Your task to perform on an android device: Search for a dining table on crateandbarrel.com Image 0: 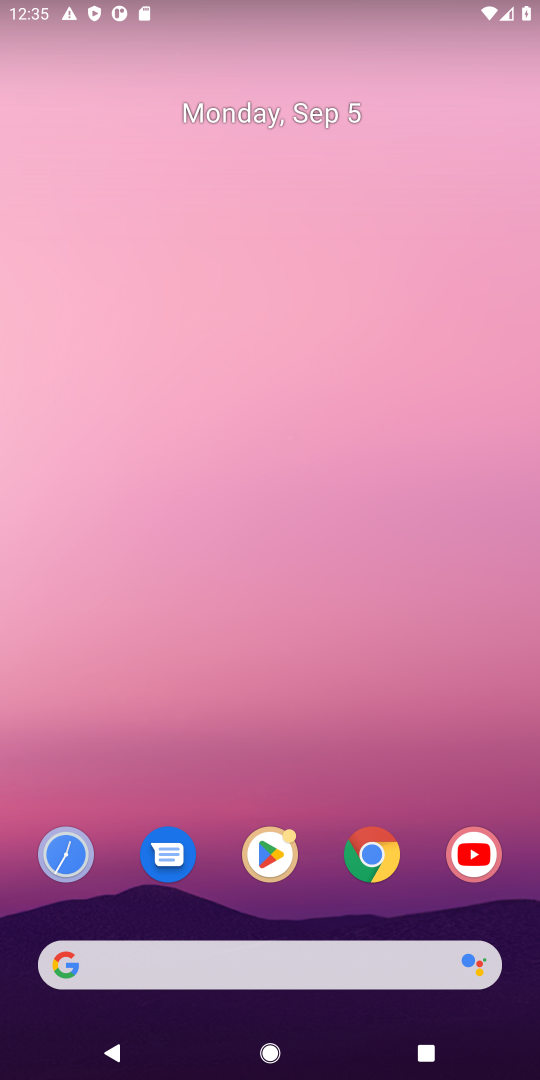
Step 0: click (236, 957)
Your task to perform on an android device: Search for a dining table on crateandbarrel.com Image 1: 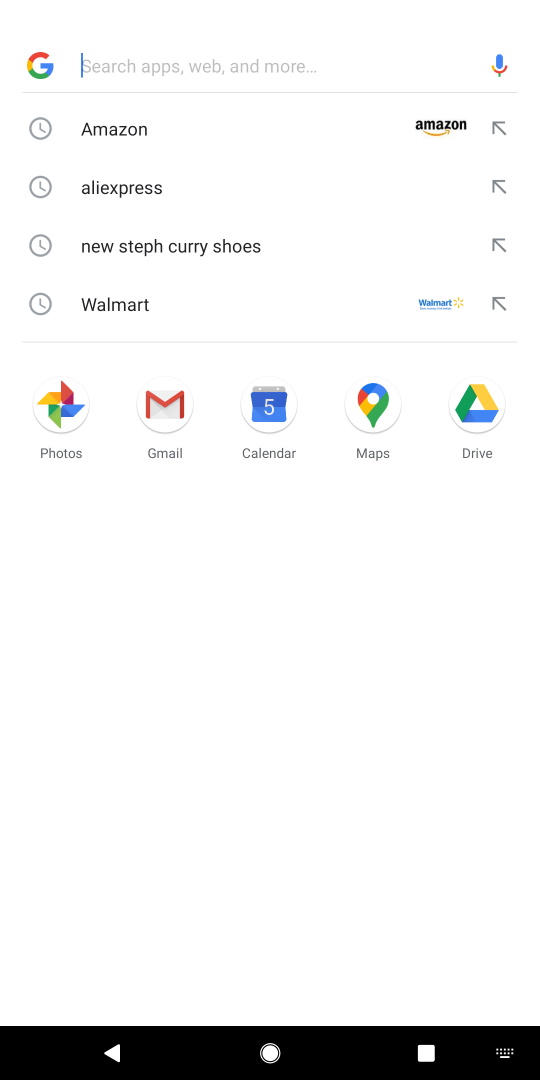
Step 1: type "crateandbarrel.com"
Your task to perform on an android device: Search for a dining table on crateandbarrel.com Image 2: 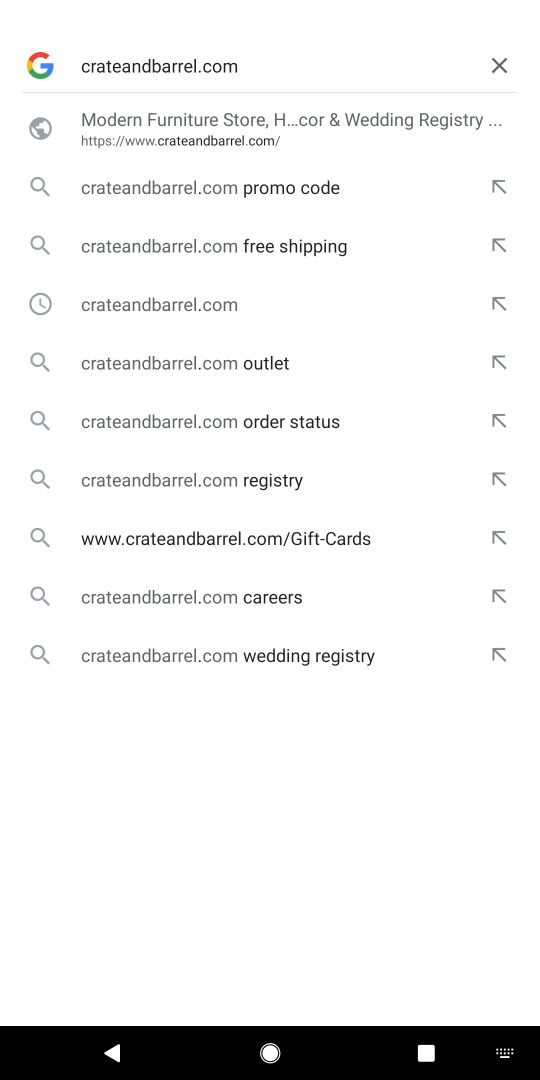
Step 2: press enter
Your task to perform on an android device: Search for a dining table on crateandbarrel.com Image 3: 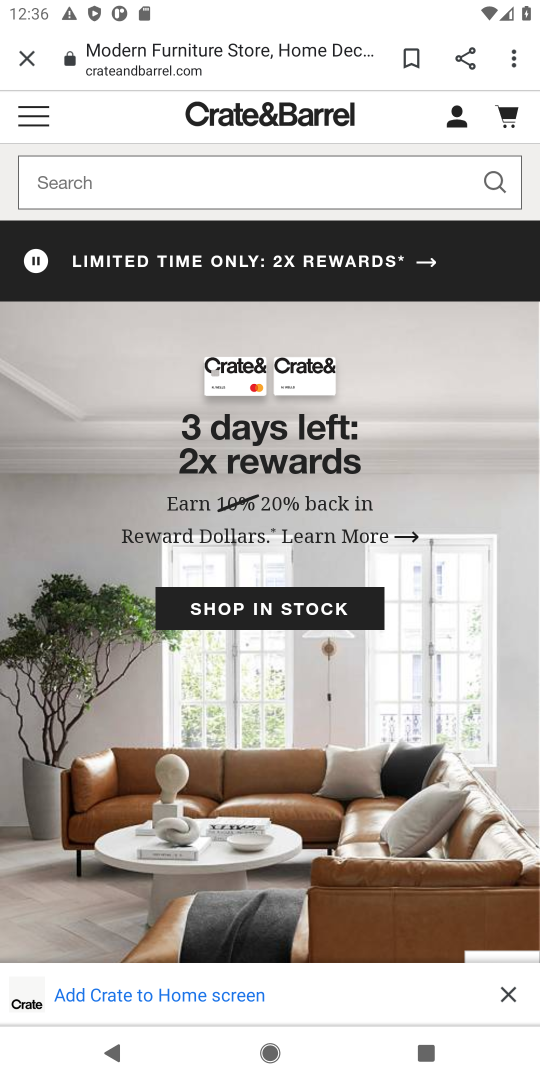
Step 3: click (183, 183)
Your task to perform on an android device: Search for a dining table on crateandbarrel.com Image 4: 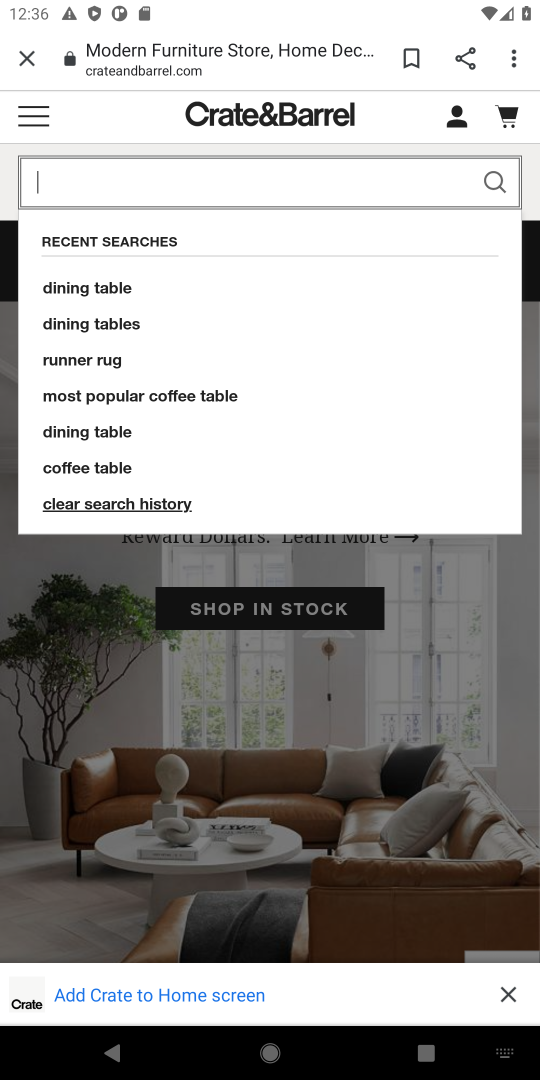
Step 4: press enter
Your task to perform on an android device: Search for a dining table on crateandbarrel.com Image 5: 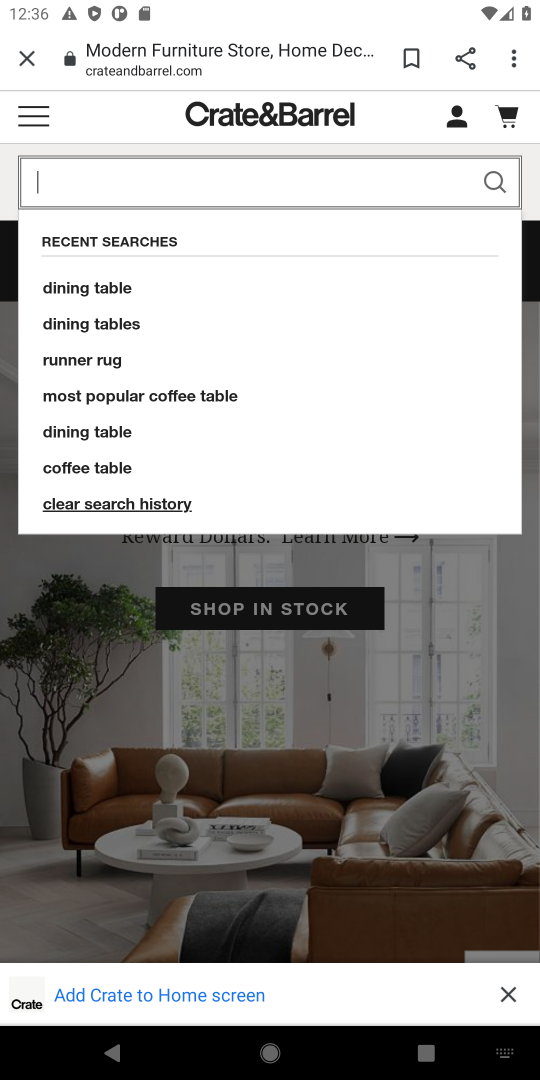
Step 5: type "dining table"
Your task to perform on an android device: Search for a dining table on crateandbarrel.com Image 6: 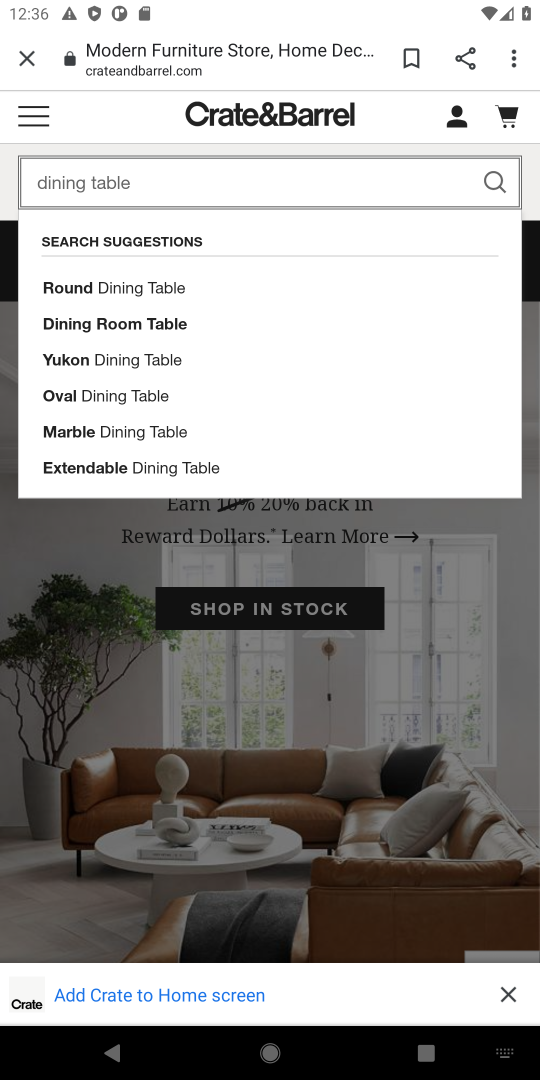
Step 6: click (489, 175)
Your task to perform on an android device: Search for a dining table on crateandbarrel.com Image 7: 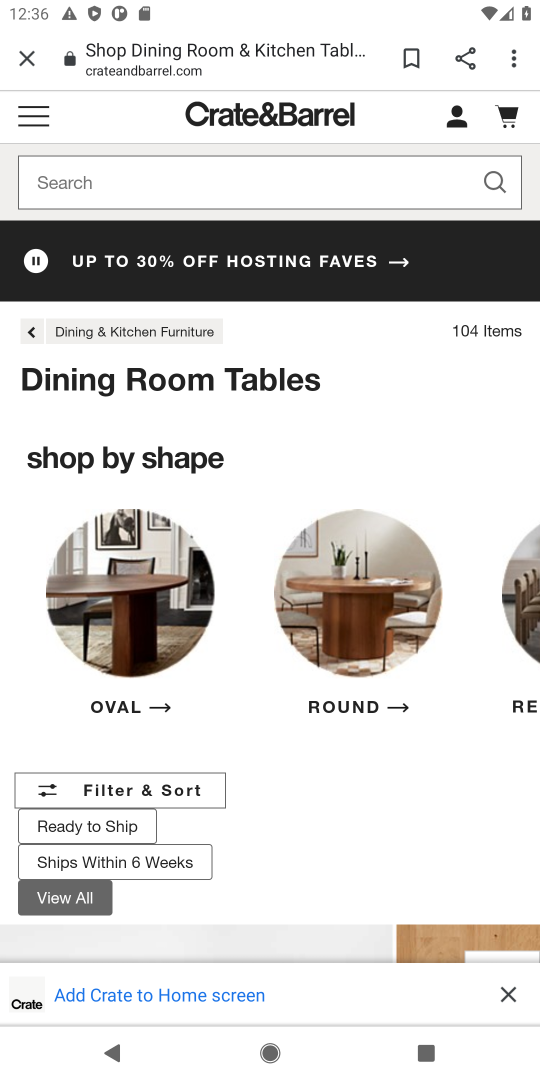
Step 7: task complete